Your task to perform on an android device: add a label to a message in the gmail app Image 0: 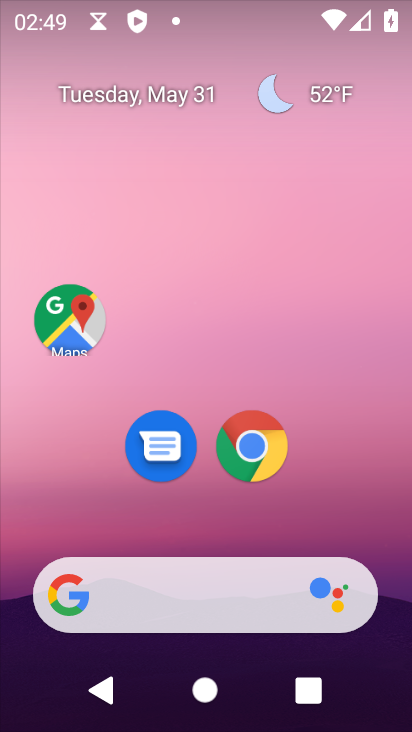
Step 0: drag from (334, 518) to (264, 163)
Your task to perform on an android device: add a label to a message in the gmail app Image 1: 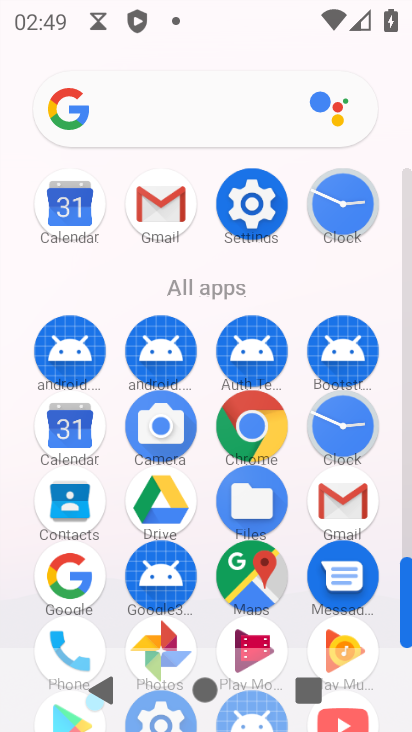
Step 1: click (161, 204)
Your task to perform on an android device: add a label to a message in the gmail app Image 2: 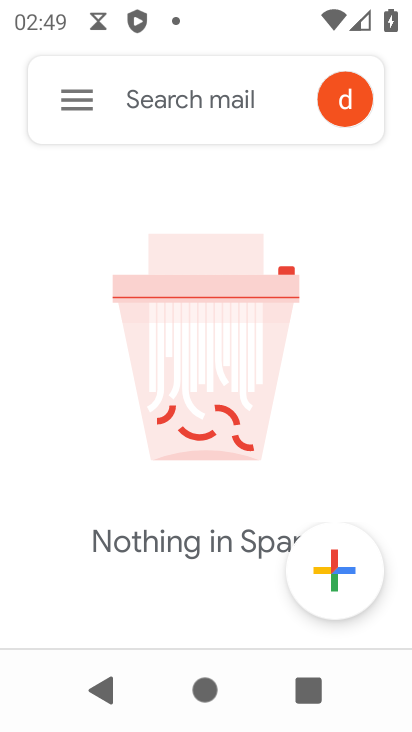
Step 2: click (88, 106)
Your task to perform on an android device: add a label to a message in the gmail app Image 3: 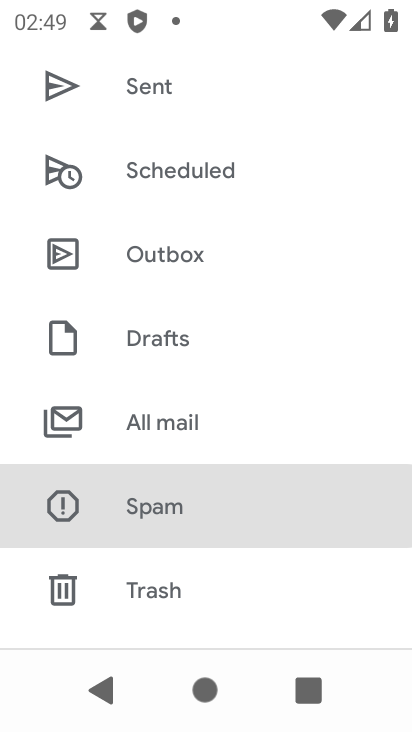
Step 3: drag from (219, 341) to (234, 433)
Your task to perform on an android device: add a label to a message in the gmail app Image 4: 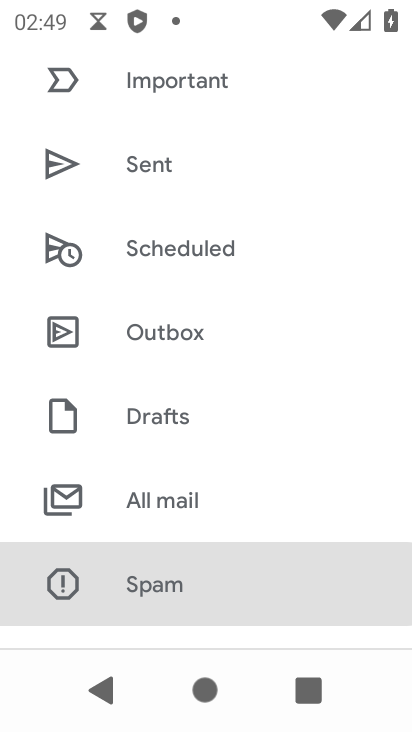
Step 4: drag from (221, 298) to (238, 400)
Your task to perform on an android device: add a label to a message in the gmail app Image 5: 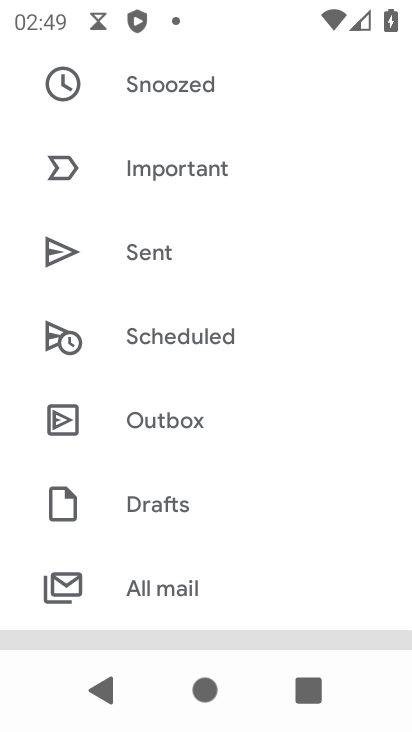
Step 5: click (197, 584)
Your task to perform on an android device: add a label to a message in the gmail app Image 6: 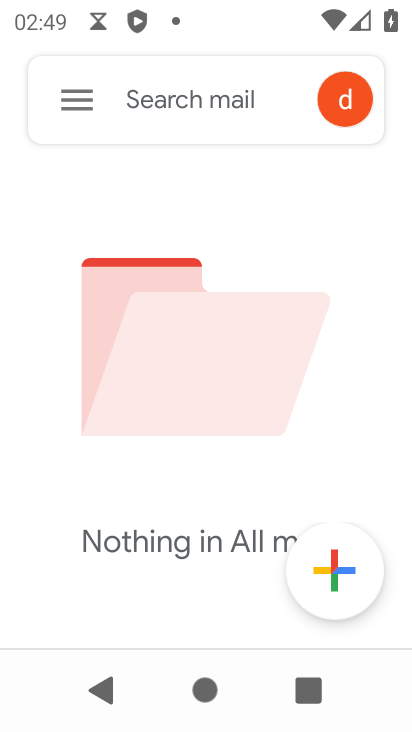
Step 6: click (65, 105)
Your task to perform on an android device: add a label to a message in the gmail app Image 7: 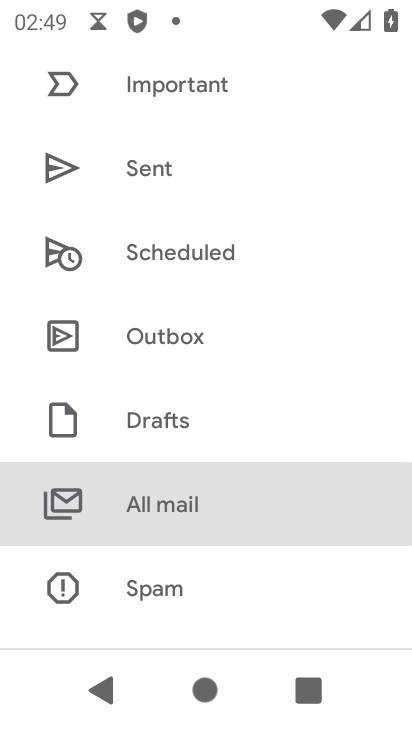
Step 7: drag from (248, 229) to (256, 397)
Your task to perform on an android device: add a label to a message in the gmail app Image 8: 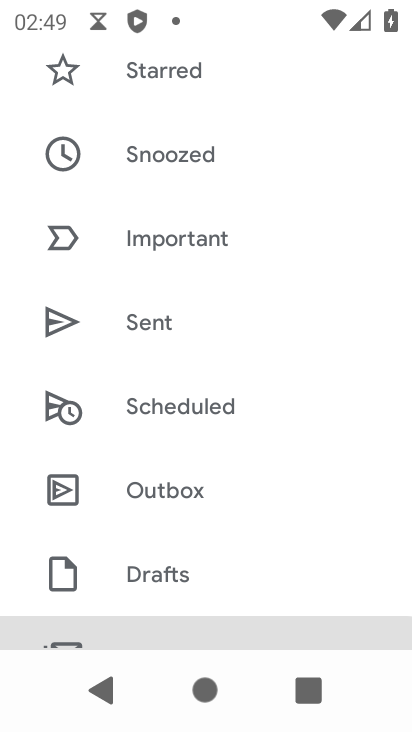
Step 8: drag from (238, 200) to (242, 388)
Your task to perform on an android device: add a label to a message in the gmail app Image 9: 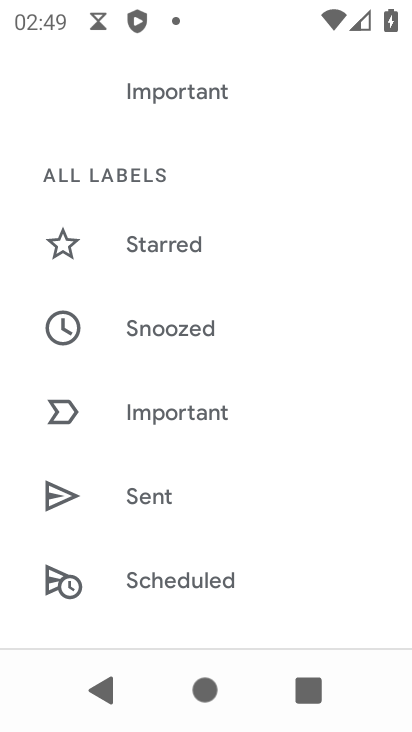
Step 9: drag from (199, 173) to (222, 286)
Your task to perform on an android device: add a label to a message in the gmail app Image 10: 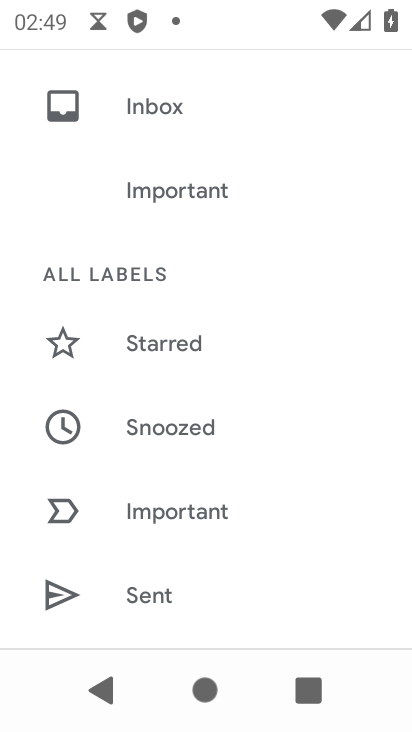
Step 10: drag from (204, 292) to (198, 368)
Your task to perform on an android device: add a label to a message in the gmail app Image 11: 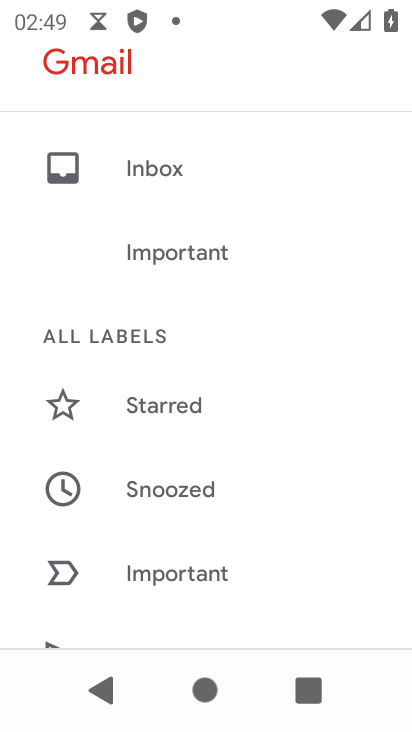
Step 11: click (169, 166)
Your task to perform on an android device: add a label to a message in the gmail app Image 12: 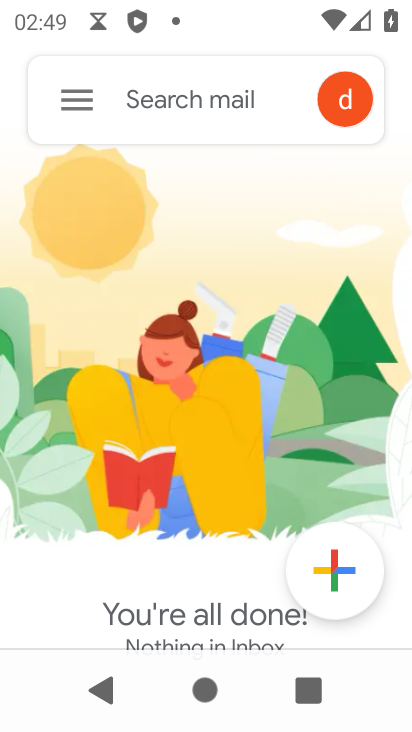
Step 12: task complete